Your task to perform on an android device: open sync settings in chrome Image 0: 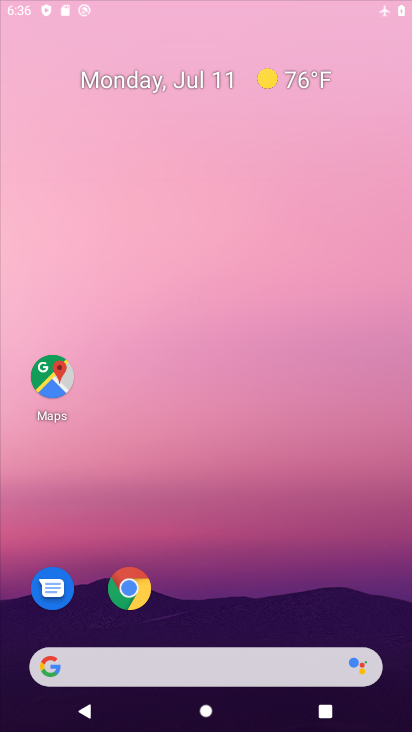
Step 0: drag from (233, 575) to (182, 79)
Your task to perform on an android device: open sync settings in chrome Image 1: 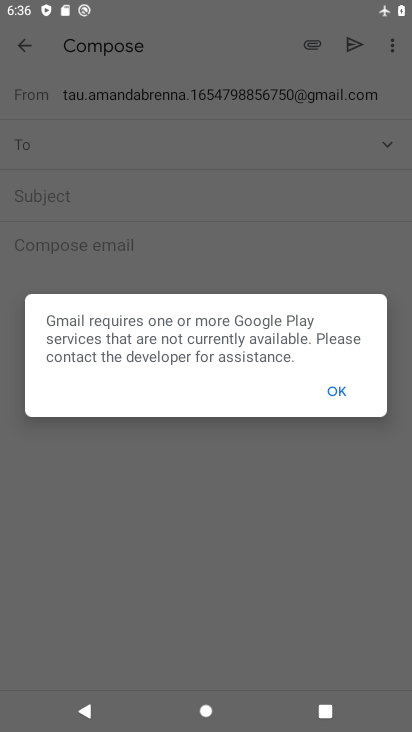
Step 1: press home button
Your task to perform on an android device: open sync settings in chrome Image 2: 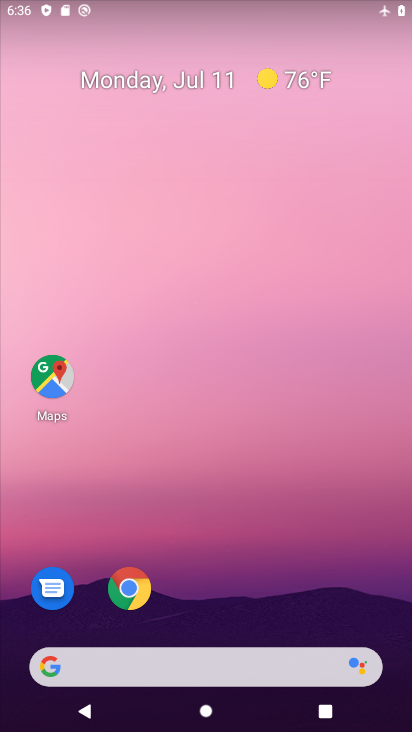
Step 2: drag from (240, 571) to (213, 116)
Your task to perform on an android device: open sync settings in chrome Image 3: 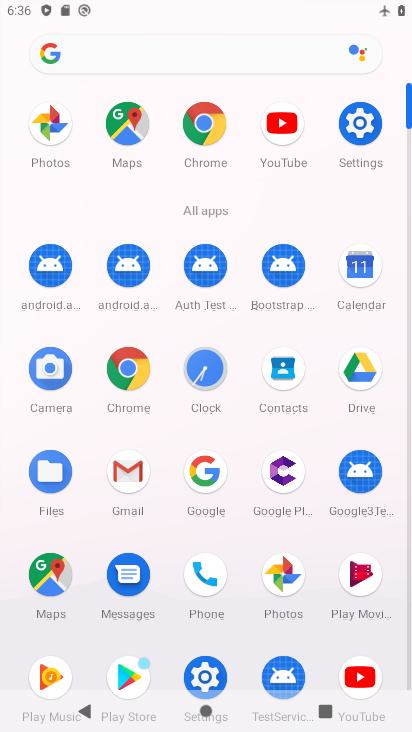
Step 3: click (202, 134)
Your task to perform on an android device: open sync settings in chrome Image 4: 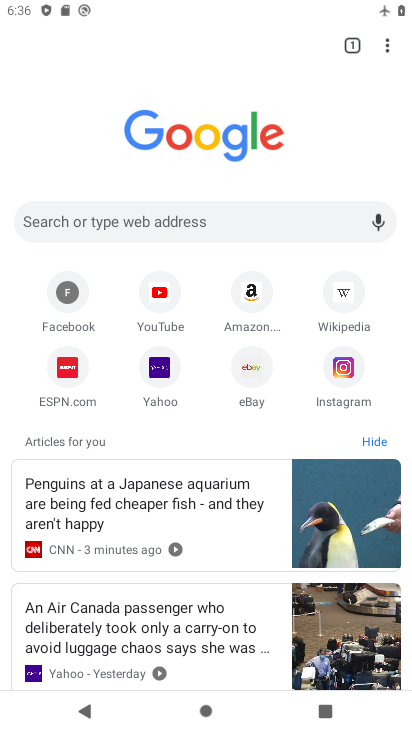
Step 4: click (388, 41)
Your task to perform on an android device: open sync settings in chrome Image 5: 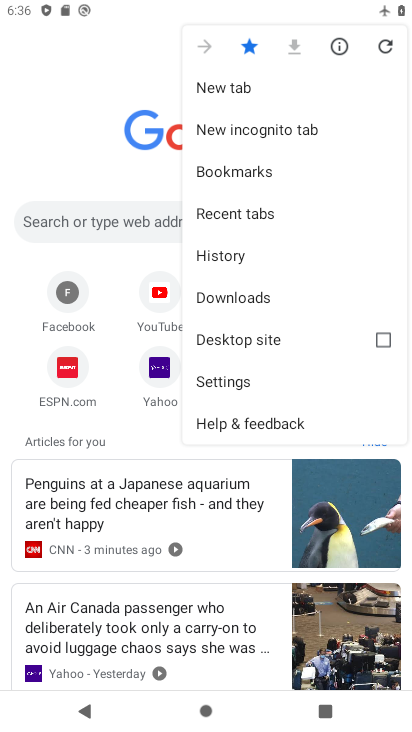
Step 5: click (232, 374)
Your task to perform on an android device: open sync settings in chrome Image 6: 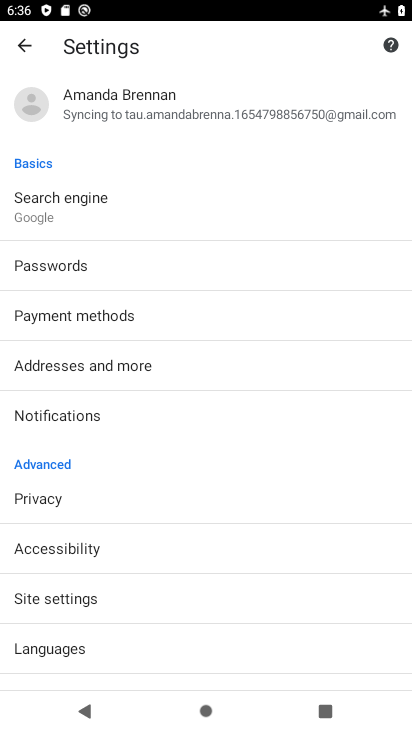
Step 6: click (100, 101)
Your task to perform on an android device: open sync settings in chrome Image 7: 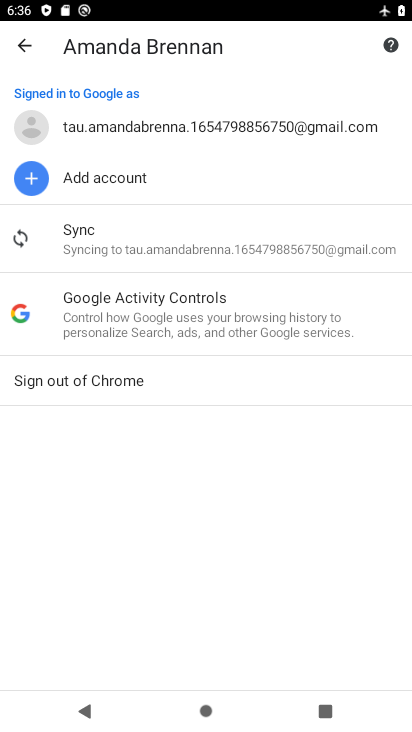
Step 7: click (81, 230)
Your task to perform on an android device: open sync settings in chrome Image 8: 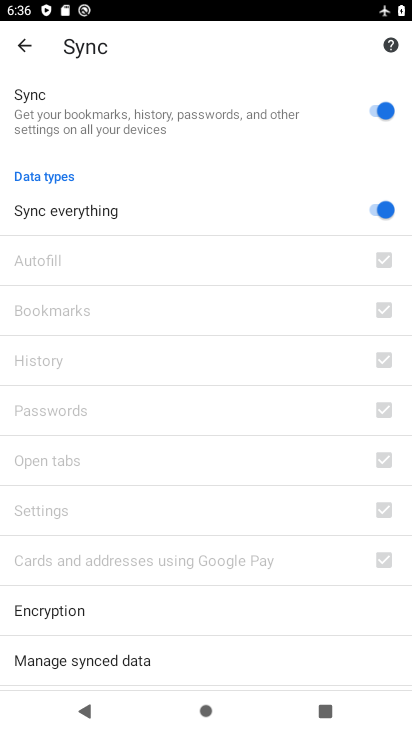
Step 8: task complete